Your task to perform on an android device: turn on the 24-hour format for clock Image 0: 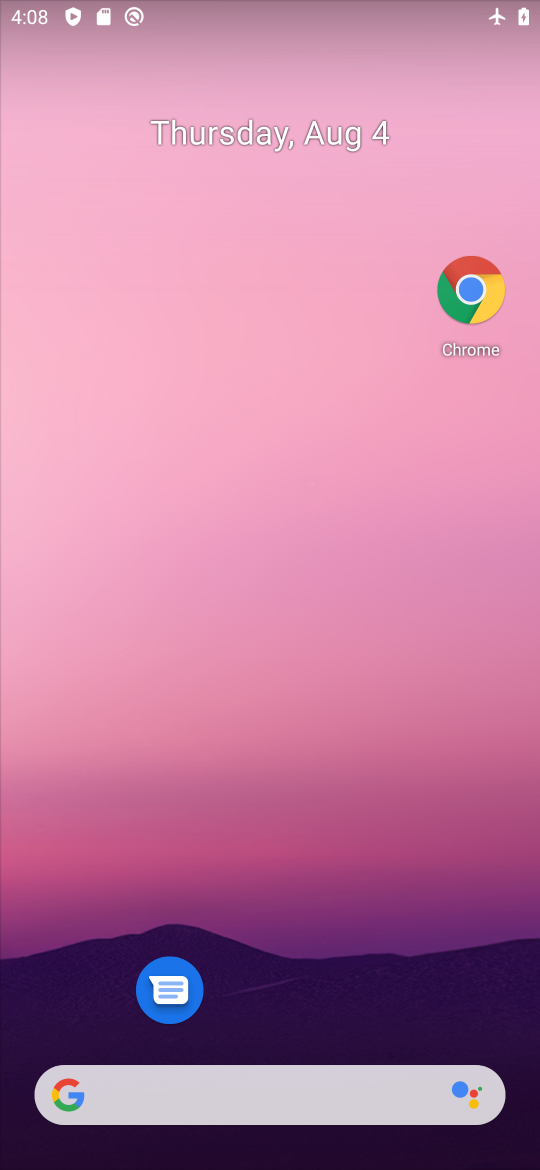
Step 0: drag from (328, 1056) to (238, 308)
Your task to perform on an android device: turn on the 24-hour format for clock Image 1: 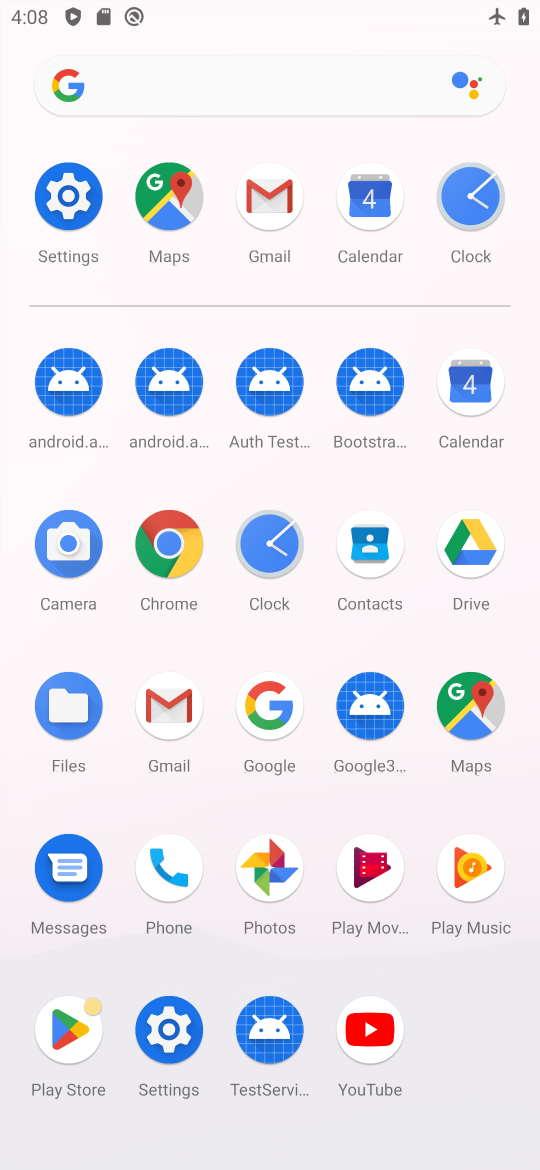
Step 1: click (455, 225)
Your task to perform on an android device: turn on the 24-hour format for clock Image 2: 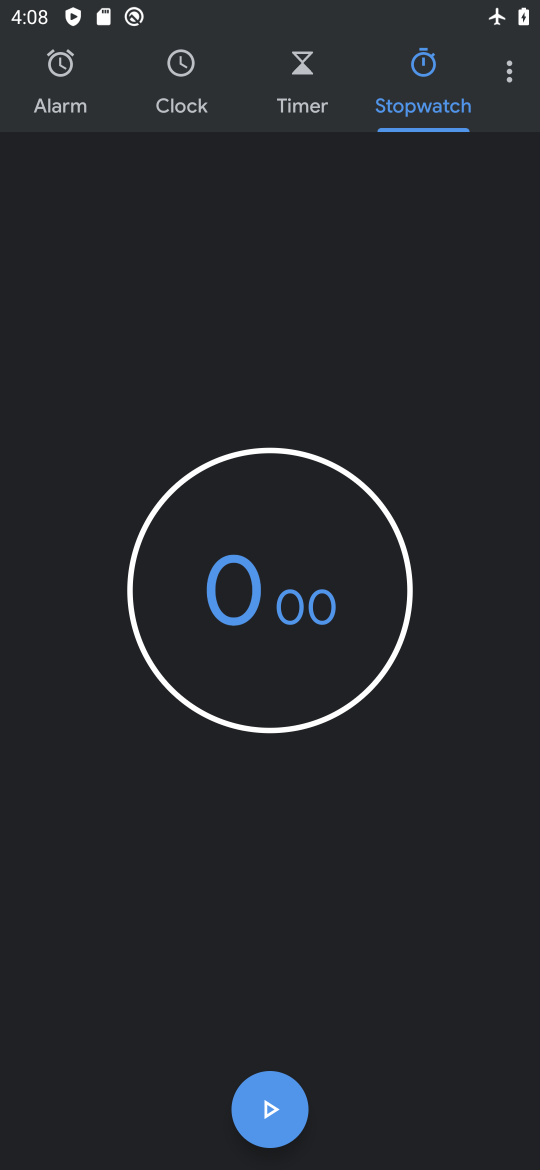
Step 2: click (502, 88)
Your task to perform on an android device: turn on the 24-hour format for clock Image 3: 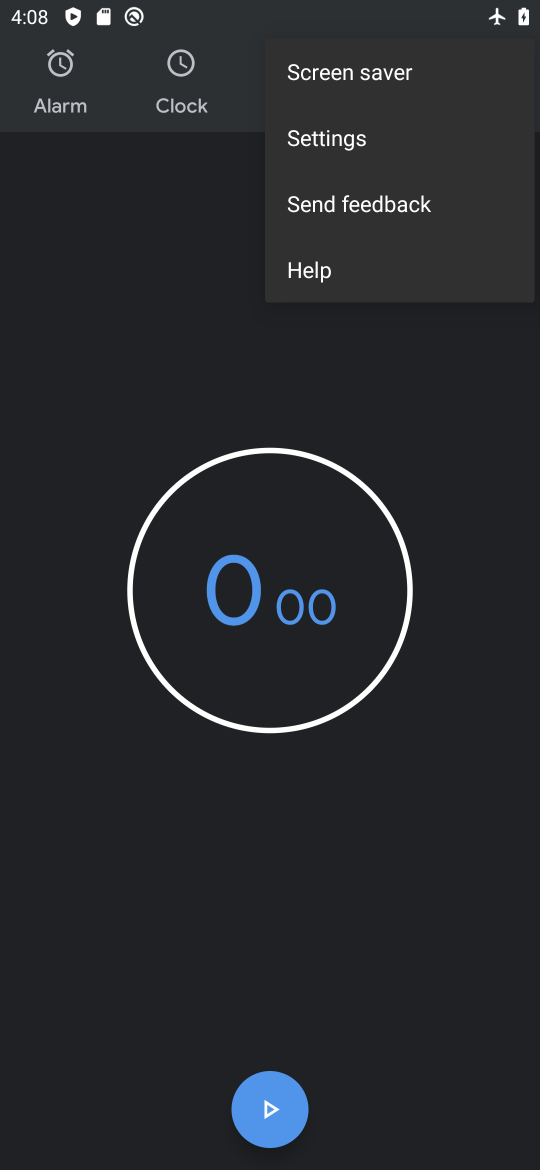
Step 3: click (386, 149)
Your task to perform on an android device: turn on the 24-hour format for clock Image 4: 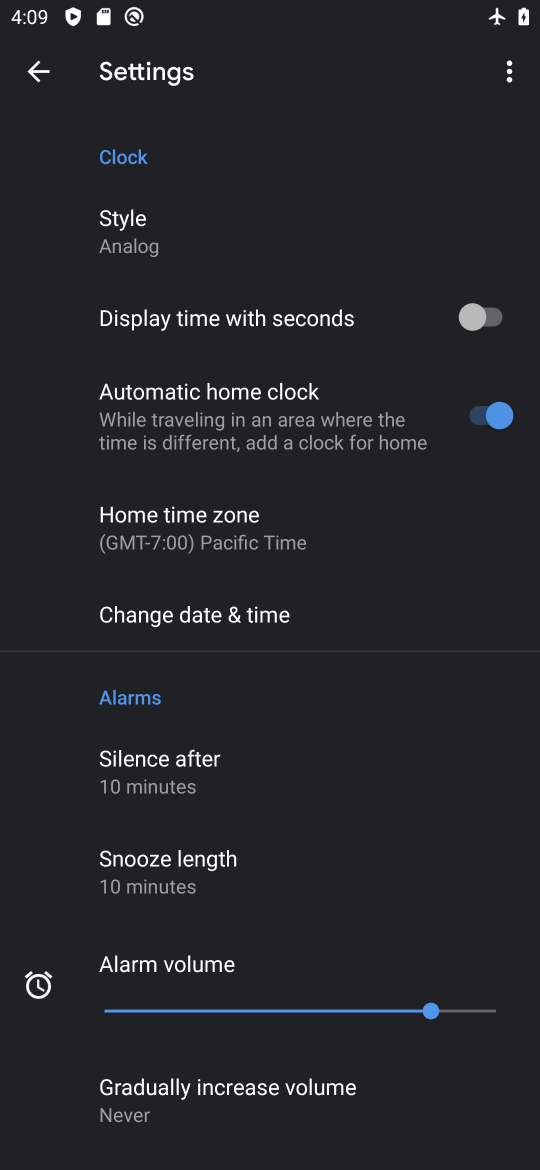
Step 4: click (210, 628)
Your task to perform on an android device: turn on the 24-hour format for clock Image 5: 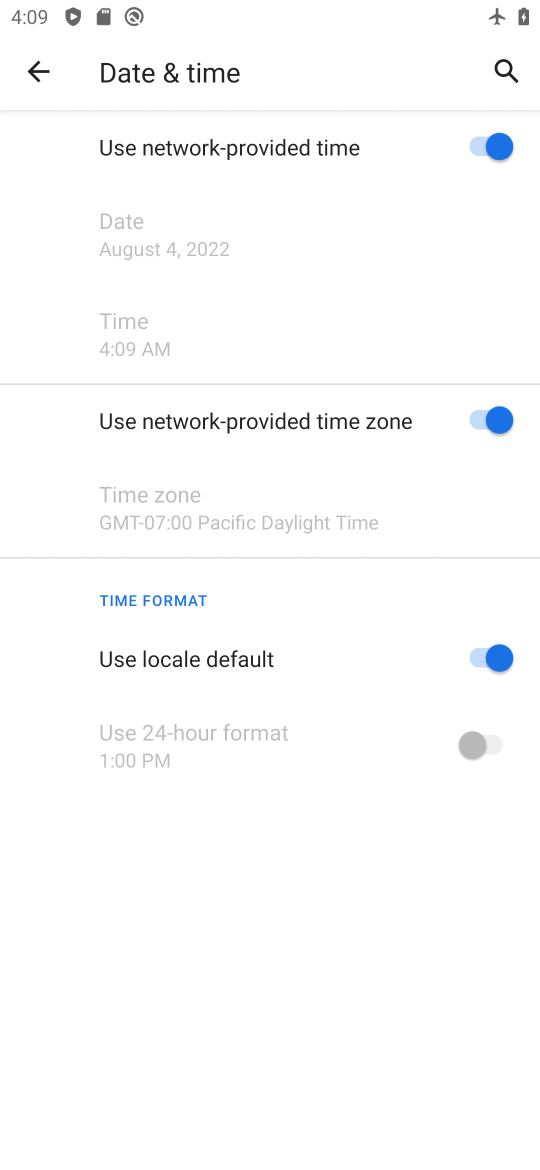
Step 5: click (471, 645)
Your task to perform on an android device: turn on the 24-hour format for clock Image 6: 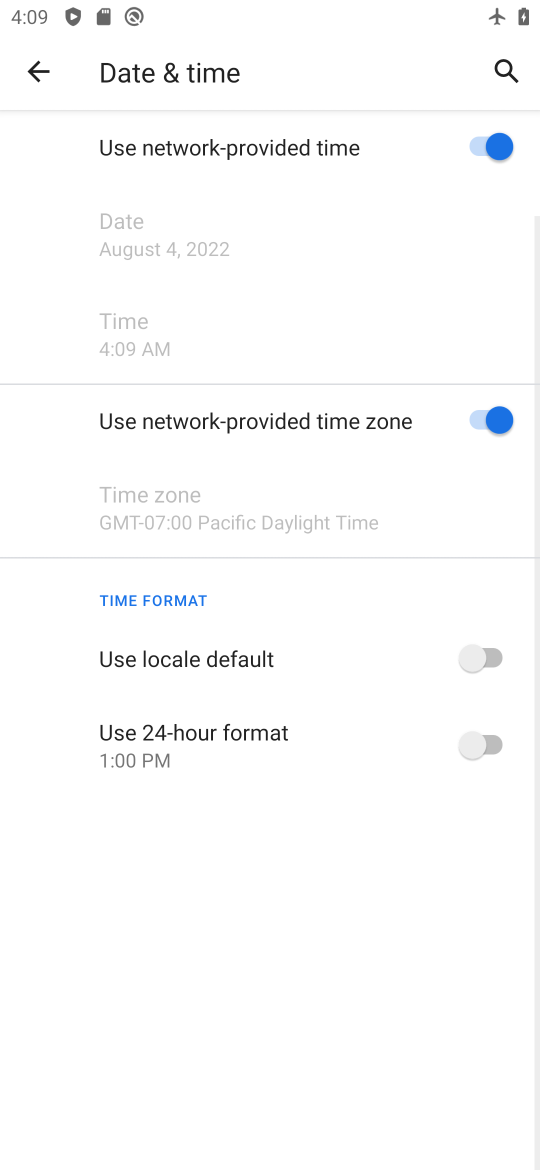
Step 6: click (495, 749)
Your task to perform on an android device: turn on the 24-hour format for clock Image 7: 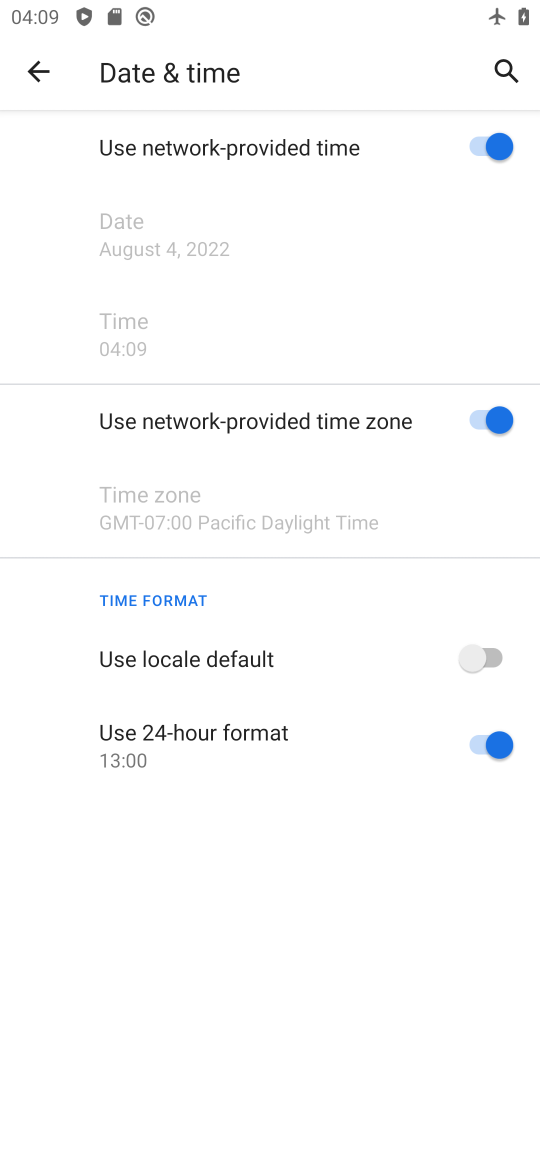
Step 7: task complete